Your task to perform on an android device: Open the phone app and click the voicemail tab. Image 0: 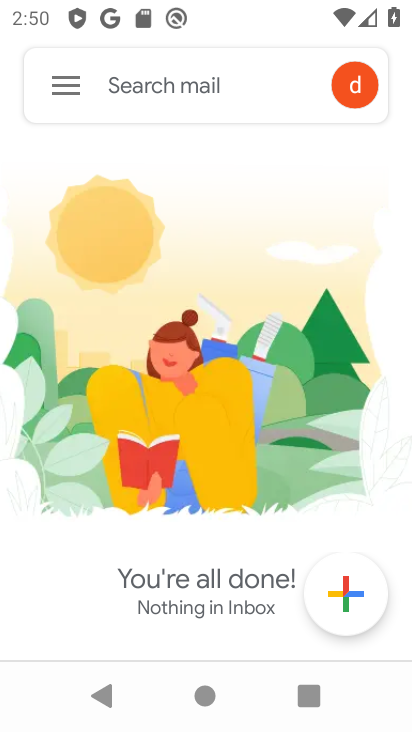
Step 0: press home button
Your task to perform on an android device: Open the phone app and click the voicemail tab. Image 1: 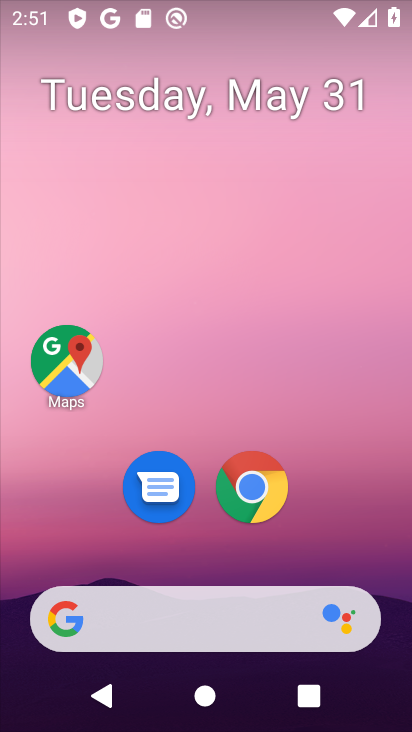
Step 1: drag from (79, 535) to (209, 111)
Your task to perform on an android device: Open the phone app and click the voicemail tab. Image 2: 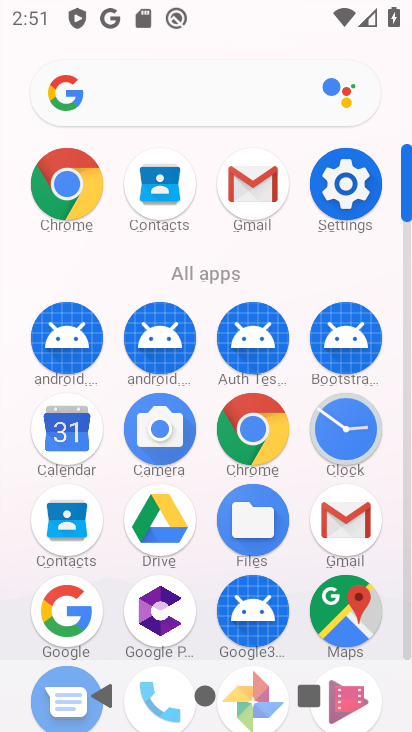
Step 2: drag from (179, 555) to (231, 358)
Your task to perform on an android device: Open the phone app and click the voicemail tab. Image 3: 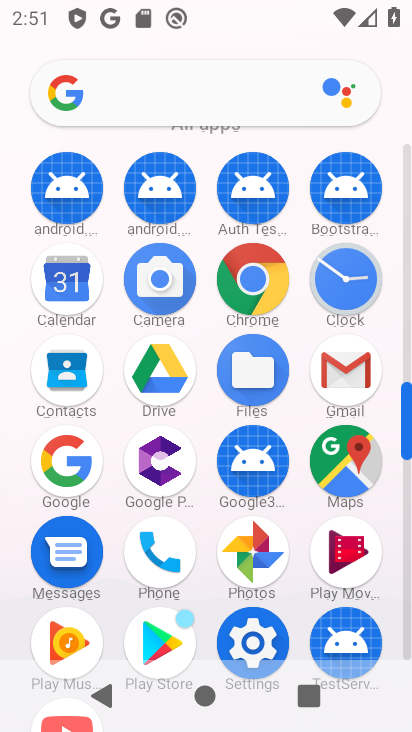
Step 3: click (156, 566)
Your task to perform on an android device: Open the phone app and click the voicemail tab. Image 4: 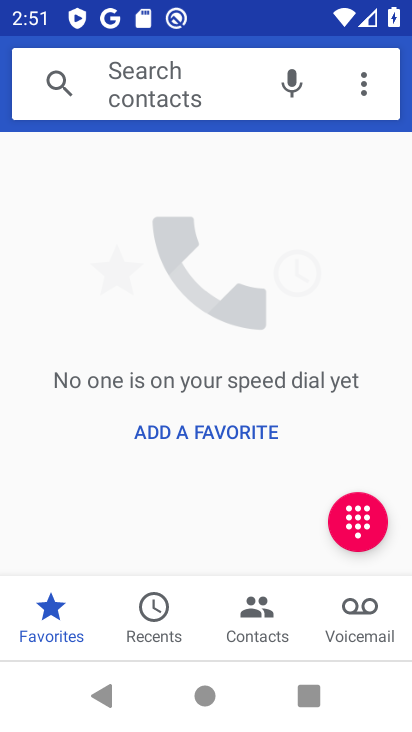
Step 4: click (338, 621)
Your task to perform on an android device: Open the phone app and click the voicemail tab. Image 5: 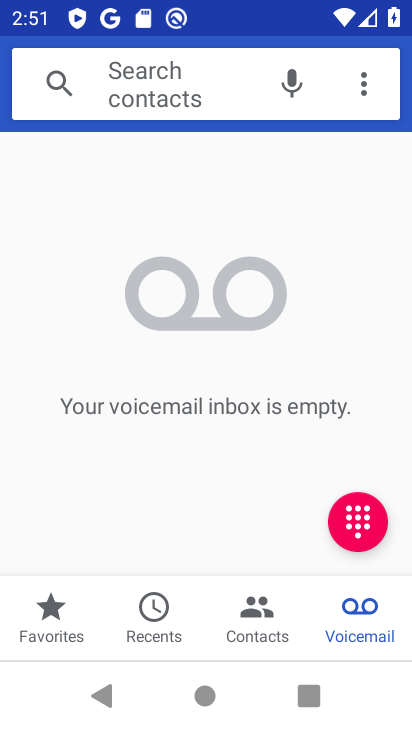
Step 5: task complete